Your task to perform on an android device: Turn on the flashlight Image 0: 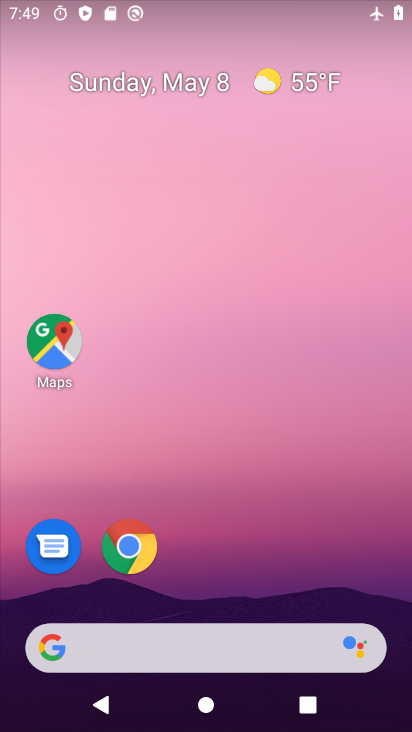
Step 0: drag from (255, 554) to (297, 48)
Your task to perform on an android device: Turn on the flashlight Image 1: 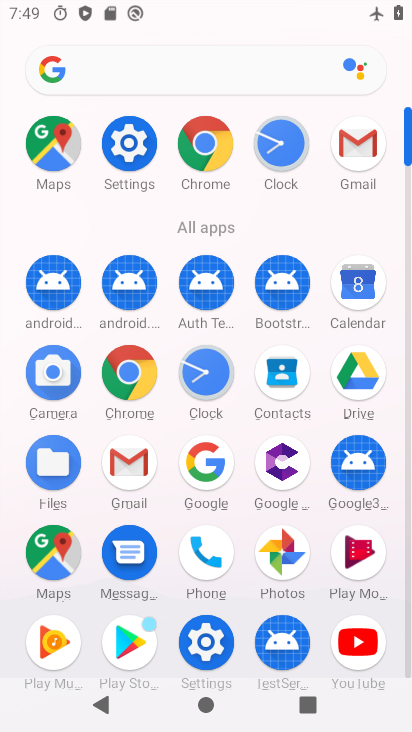
Step 1: click (137, 151)
Your task to perform on an android device: Turn on the flashlight Image 2: 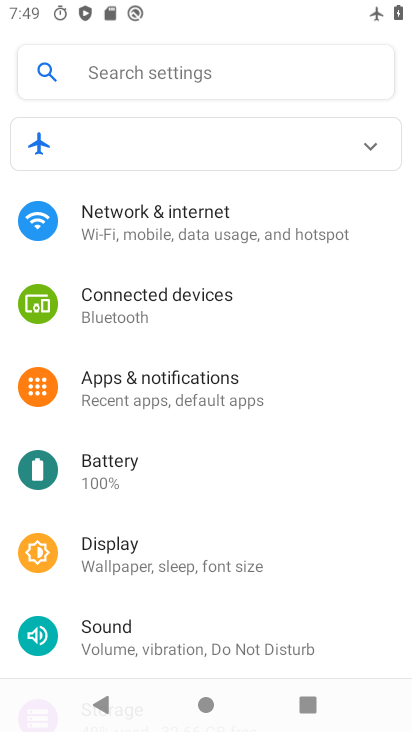
Step 2: click (217, 57)
Your task to perform on an android device: Turn on the flashlight Image 3: 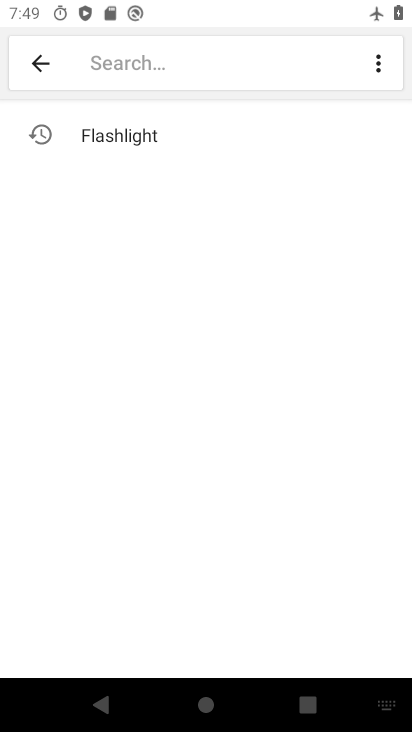
Step 3: click (119, 140)
Your task to perform on an android device: Turn on the flashlight Image 4: 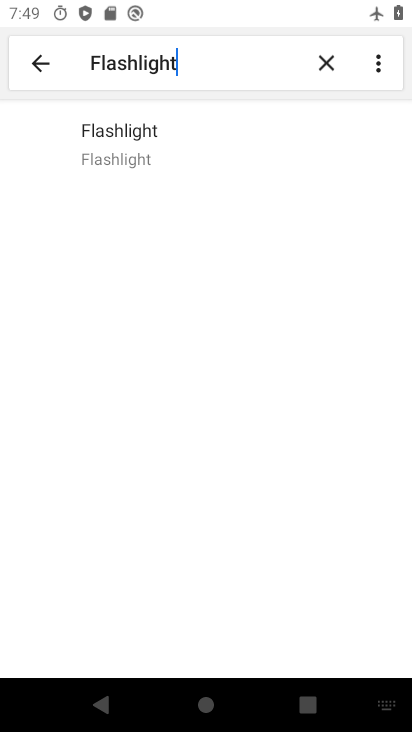
Step 4: task complete